Your task to perform on an android device: Open battery settings Image 0: 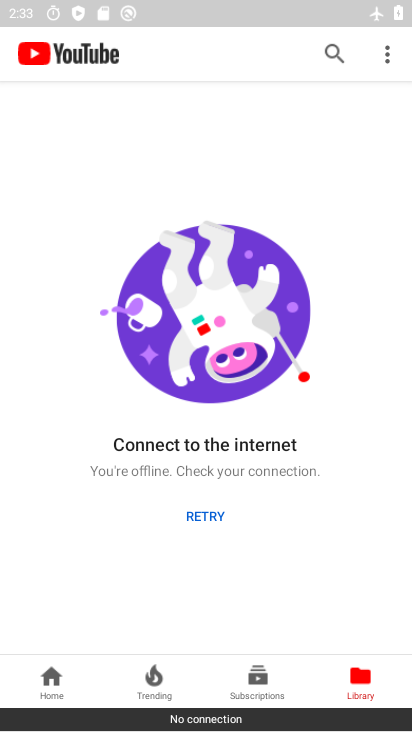
Step 0: press back button
Your task to perform on an android device: Open battery settings Image 1: 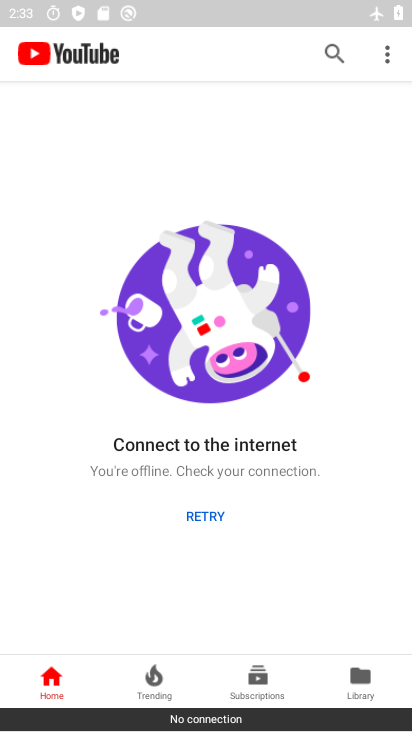
Step 1: press home button
Your task to perform on an android device: Open battery settings Image 2: 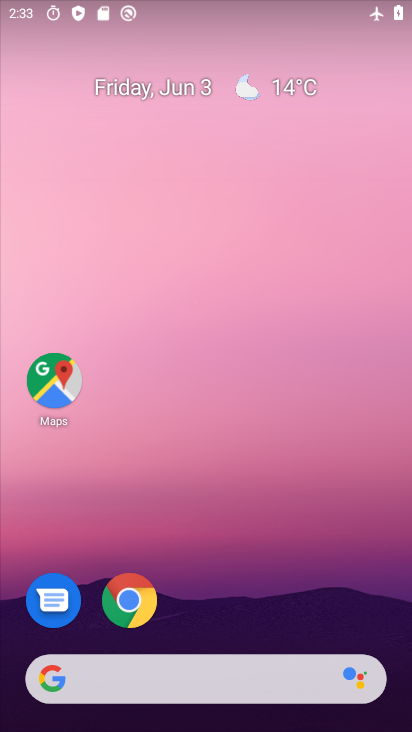
Step 2: drag from (273, 586) to (285, 16)
Your task to perform on an android device: Open battery settings Image 3: 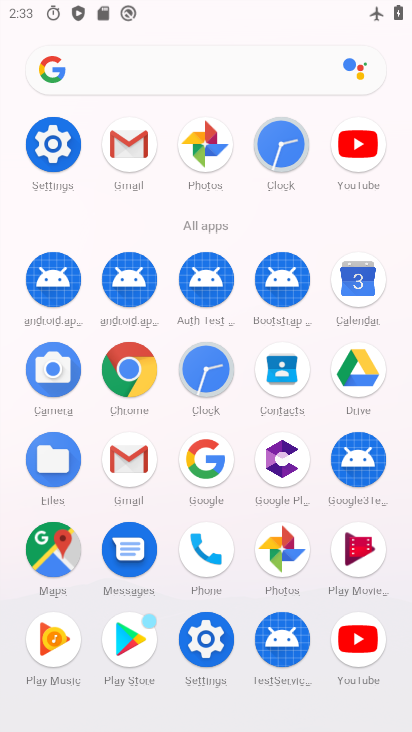
Step 3: click (50, 141)
Your task to perform on an android device: Open battery settings Image 4: 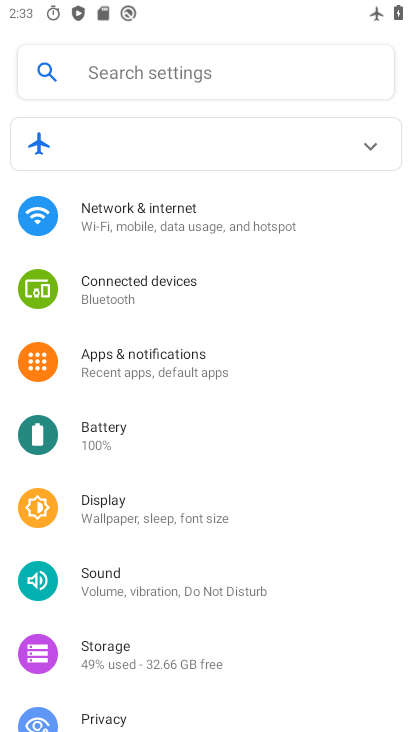
Step 4: click (117, 435)
Your task to perform on an android device: Open battery settings Image 5: 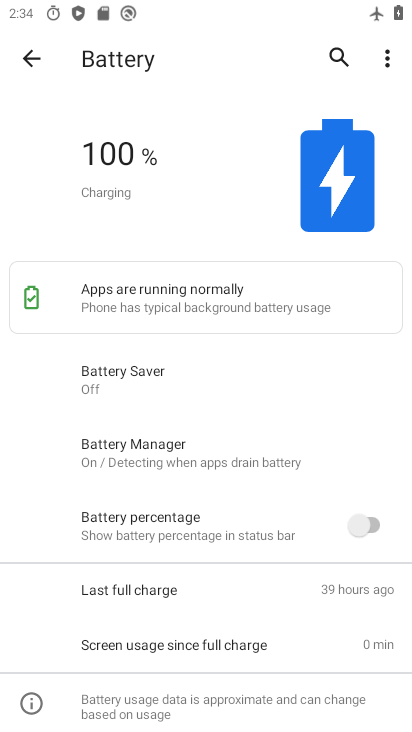
Step 5: task complete